Your task to perform on an android device: turn off priority inbox in the gmail app Image 0: 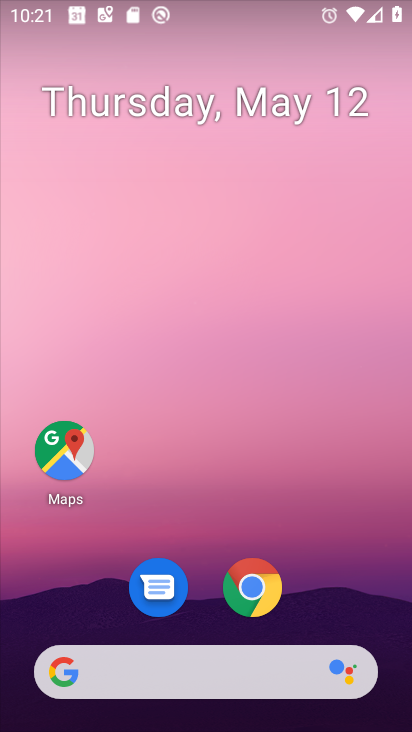
Step 0: drag from (388, 607) to (295, 39)
Your task to perform on an android device: turn off priority inbox in the gmail app Image 1: 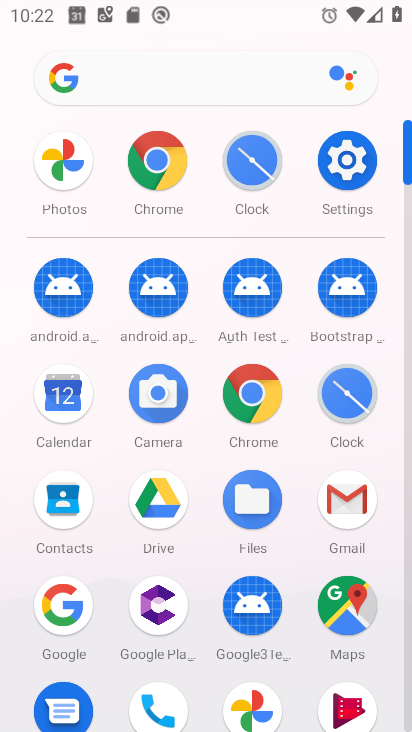
Step 1: click (335, 498)
Your task to perform on an android device: turn off priority inbox in the gmail app Image 2: 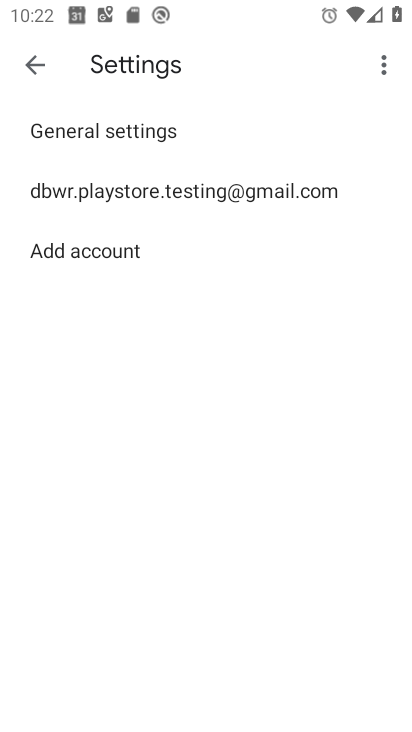
Step 2: click (145, 187)
Your task to perform on an android device: turn off priority inbox in the gmail app Image 3: 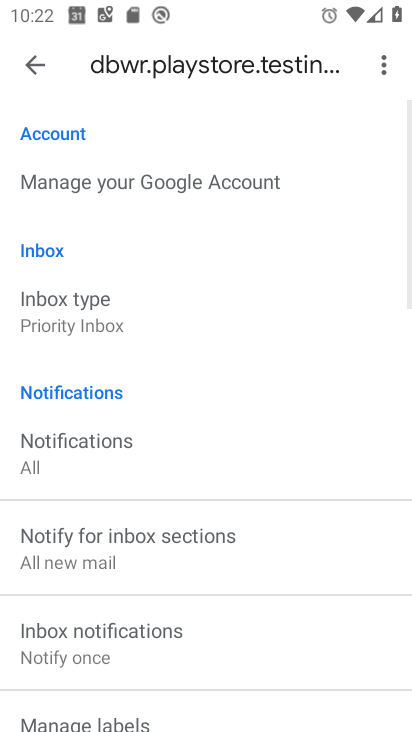
Step 3: click (166, 313)
Your task to perform on an android device: turn off priority inbox in the gmail app Image 4: 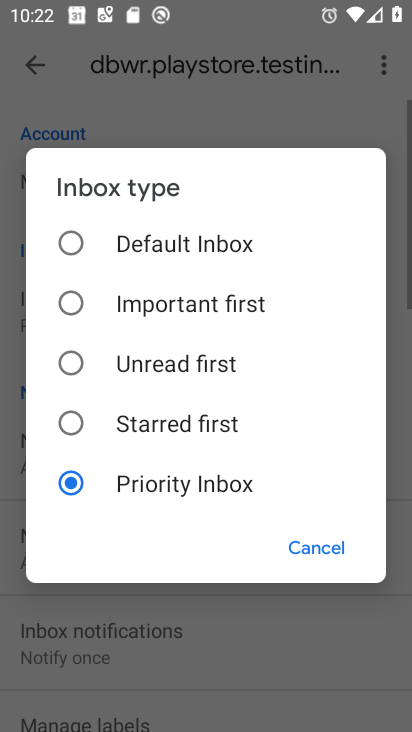
Step 4: click (123, 422)
Your task to perform on an android device: turn off priority inbox in the gmail app Image 5: 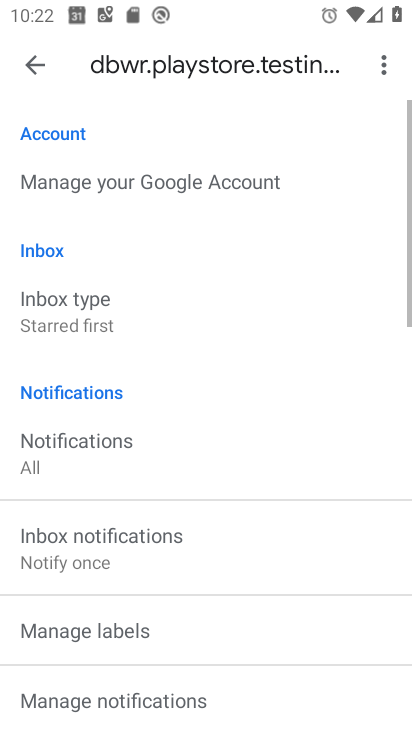
Step 5: task complete